Your task to perform on an android device: Open Youtube and go to the subscriptions tab Image 0: 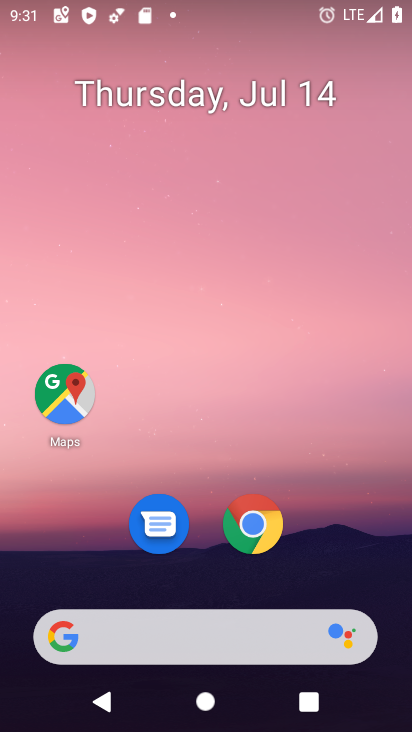
Step 0: drag from (308, 519) to (330, 16)
Your task to perform on an android device: Open Youtube and go to the subscriptions tab Image 1: 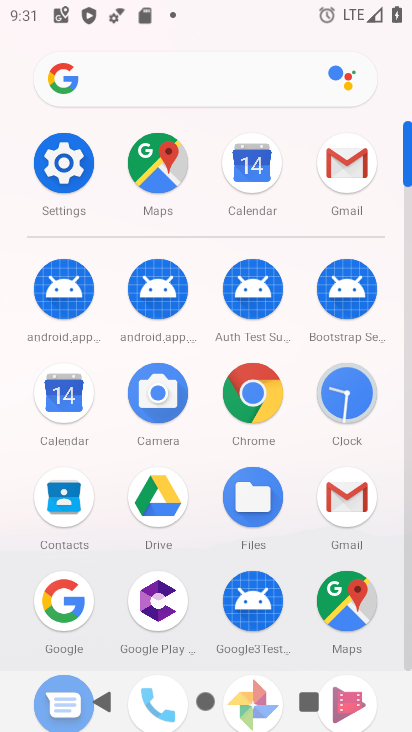
Step 1: drag from (317, 472) to (278, 1)
Your task to perform on an android device: Open Youtube and go to the subscriptions tab Image 2: 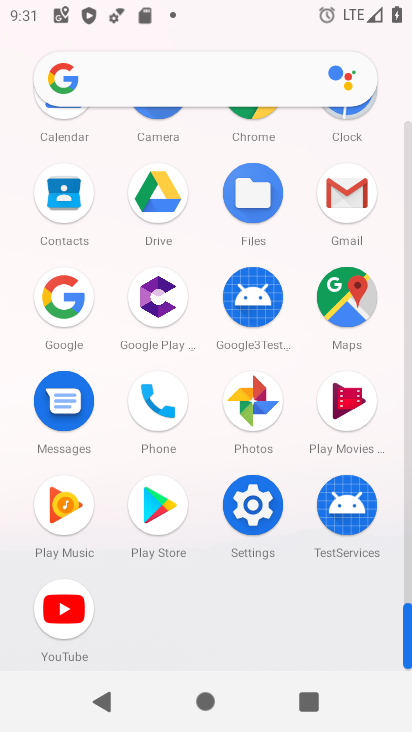
Step 2: click (63, 603)
Your task to perform on an android device: Open Youtube and go to the subscriptions tab Image 3: 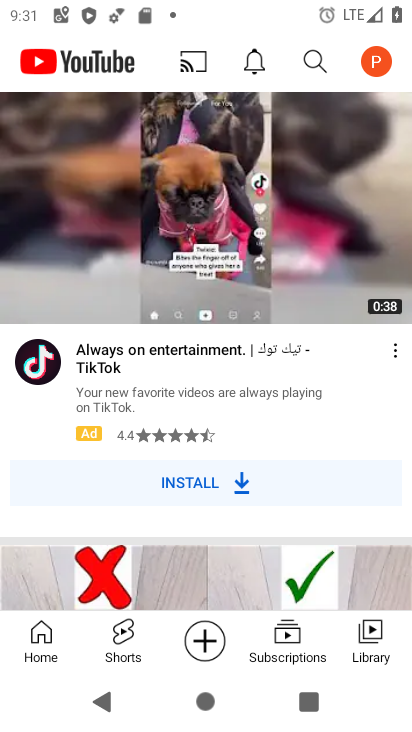
Step 3: click (273, 642)
Your task to perform on an android device: Open Youtube and go to the subscriptions tab Image 4: 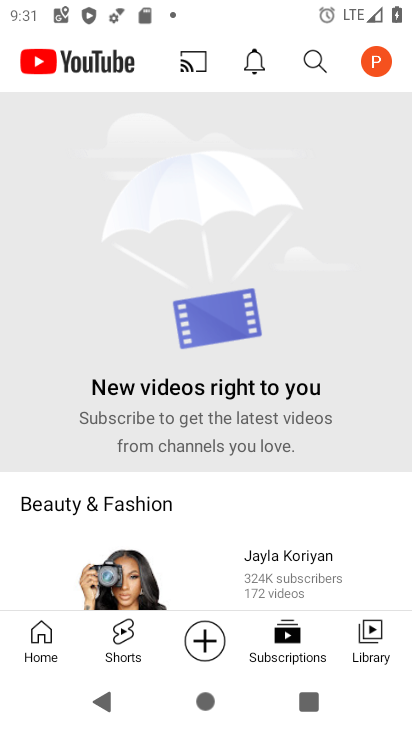
Step 4: task complete